Your task to perform on an android device: set an alarm Image 0: 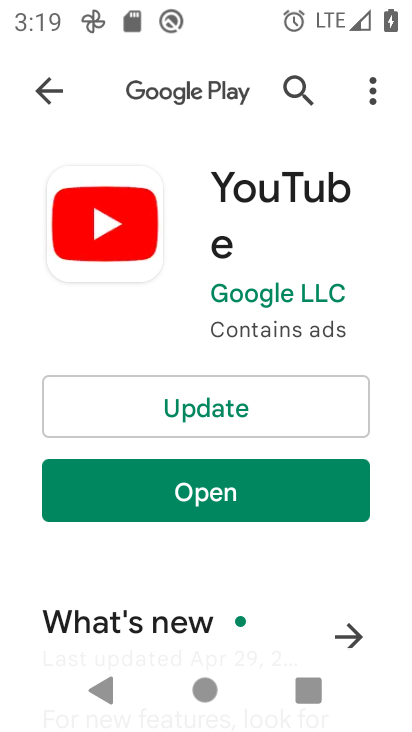
Step 0: press home button
Your task to perform on an android device: set an alarm Image 1: 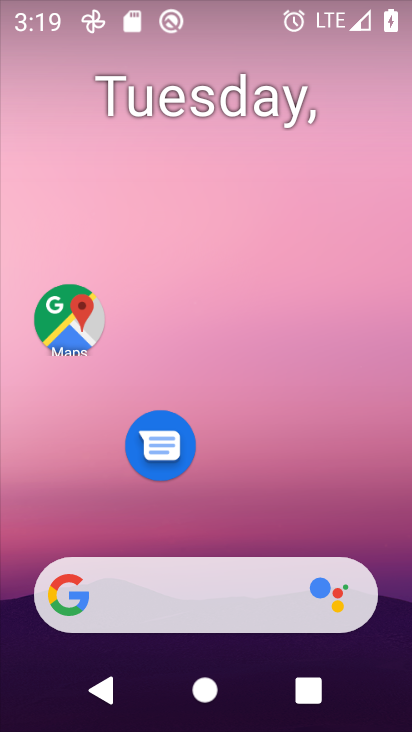
Step 1: drag from (295, 485) to (189, 42)
Your task to perform on an android device: set an alarm Image 2: 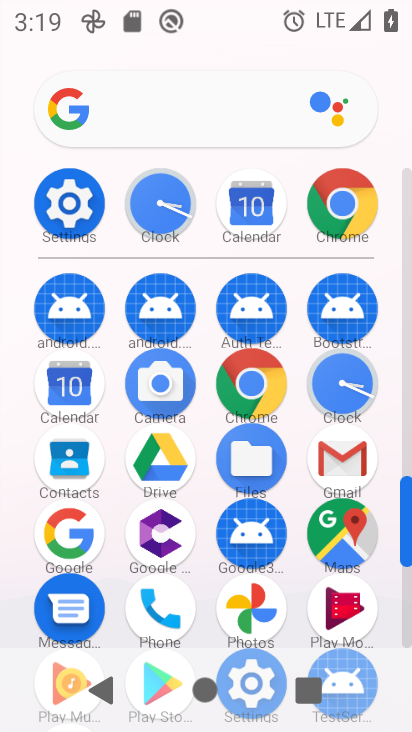
Step 2: click (169, 195)
Your task to perform on an android device: set an alarm Image 3: 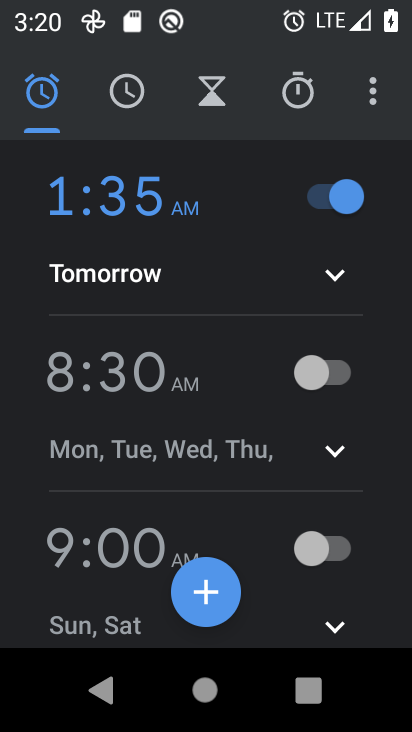
Step 3: click (209, 586)
Your task to perform on an android device: set an alarm Image 4: 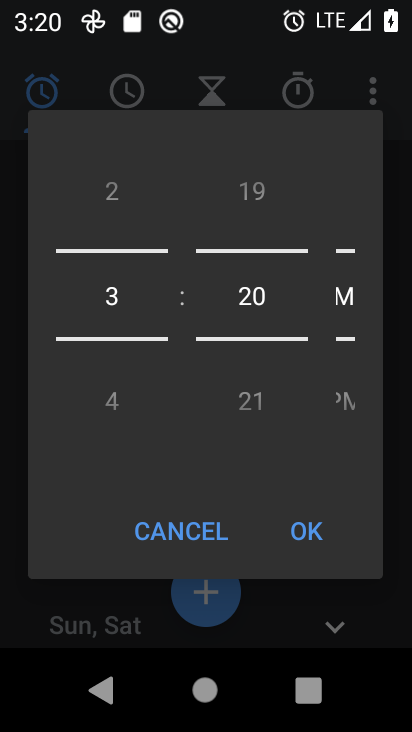
Step 4: click (303, 531)
Your task to perform on an android device: set an alarm Image 5: 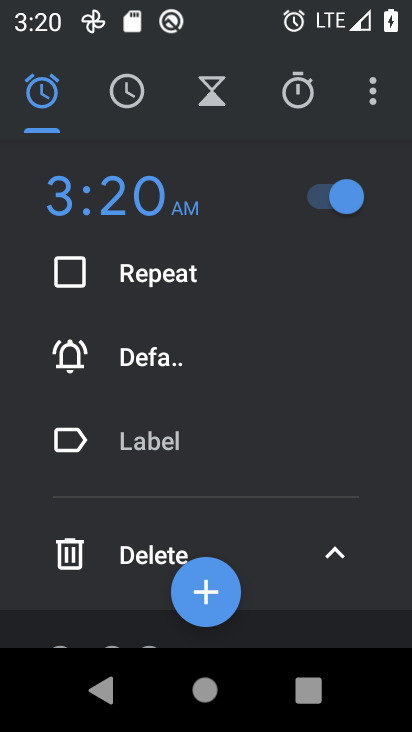
Step 5: task complete